Your task to perform on an android device: Go to Android settings Image 0: 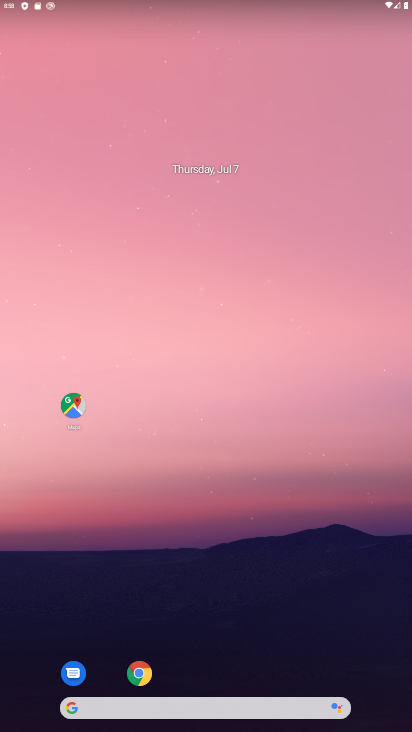
Step 0: drag from (189, 672) to (229, 50)
Your task to perform on an android device: Go to Android settings Image 1: 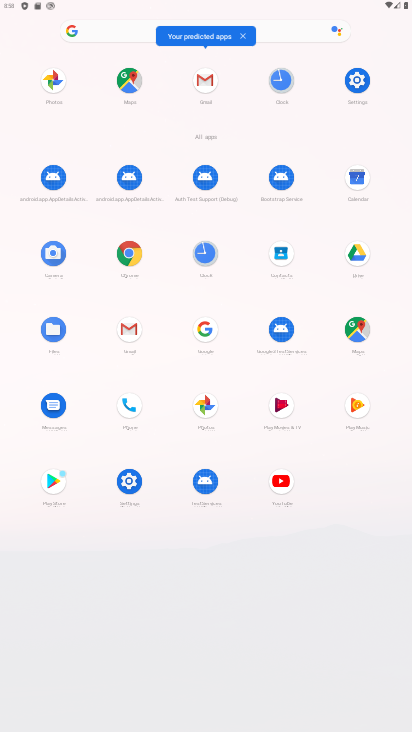
Step 1: click (127, 484)
Your task to perform on an android device: Go to Android settings Image 2: 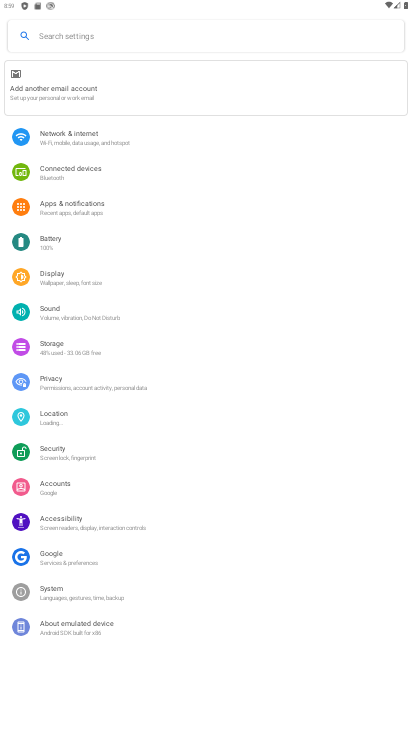
Step 2: task complete